Your task to perform on an android device: delete a single message in the gmail app Image 0: 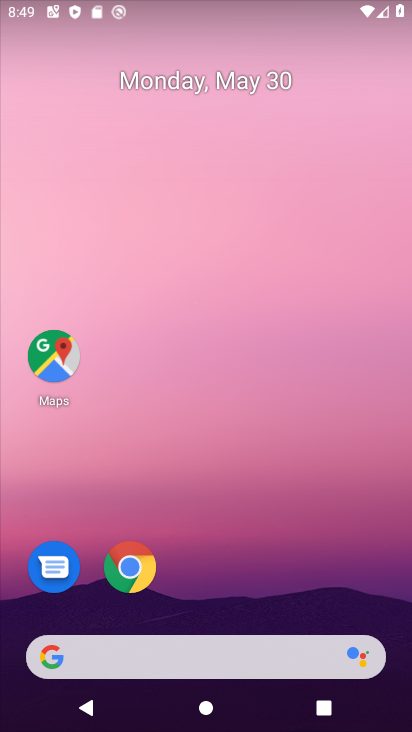
Step 0: drag from (191, 616) to (284, 46)
Your task to perform on an android device: delete a single message in the gmail app Image 1: 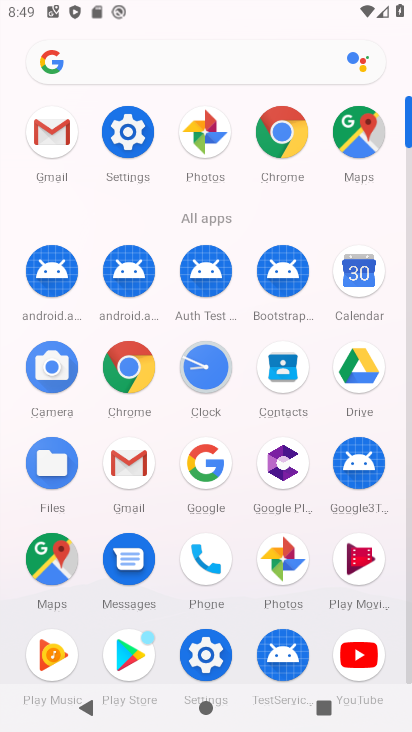
Step 1: click (54, 131)
Your task to perform on an android device: delete a single message in the gmail app Image 2: 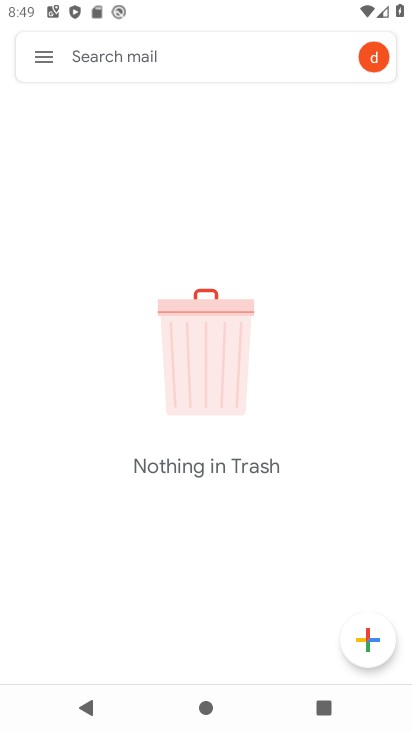
Step 2: click (34, 57)
Your task to perform on an android device: delete a single message in the gmail app Image 3: 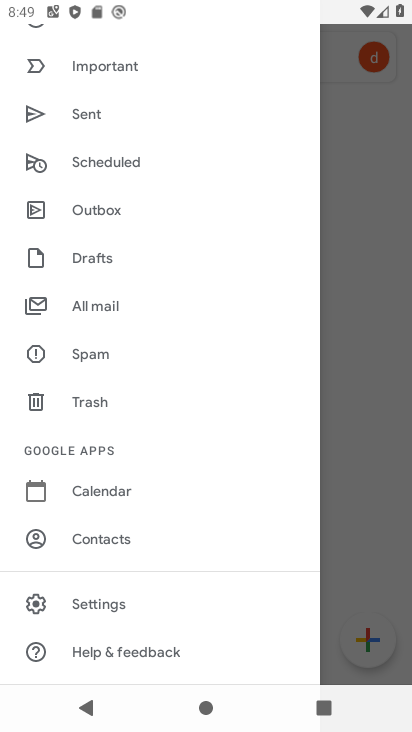
Step 3: click (110, 305)
Your task to perform on an android device: delete a single message in the gmail app Image 4: 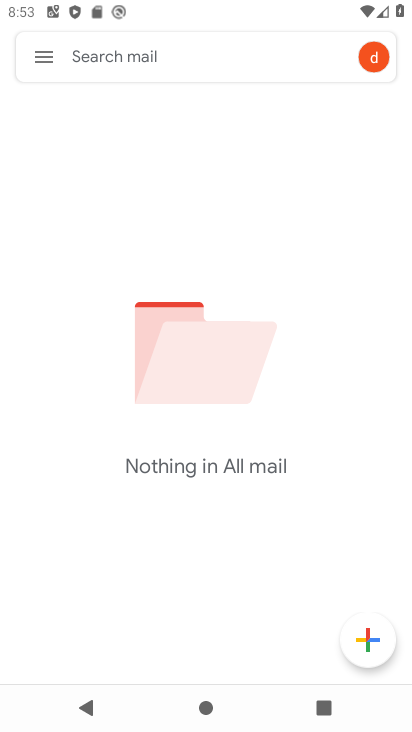
Step 4: task complete